Your task to perform on an android device: turn off notifications settings in the gmail app Image 0: 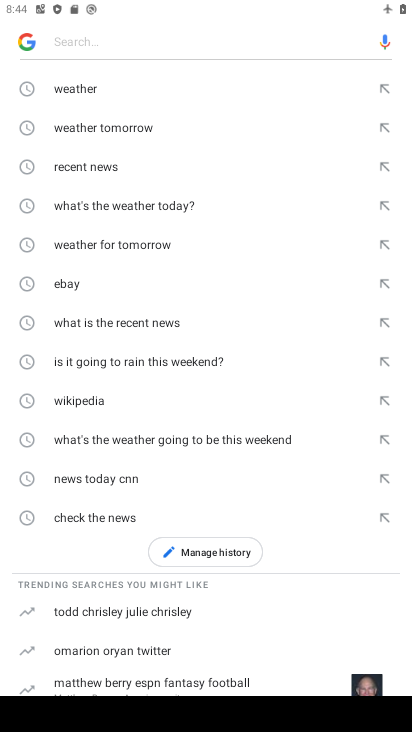
Step 0: press home button
Your task to perform on an android device: turn off notifications settings in the gmail app Image 1: 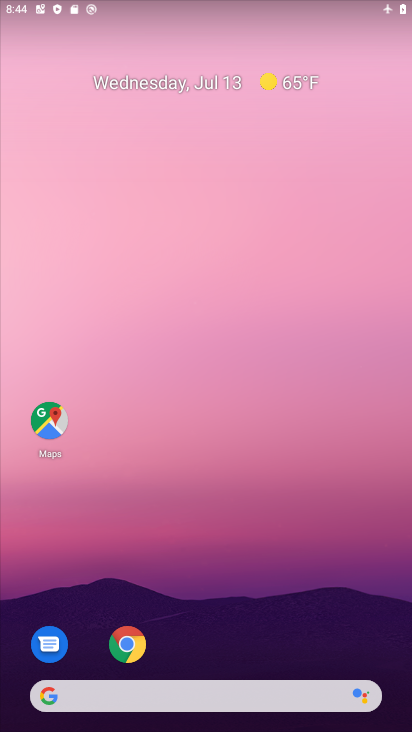
Step 1: drag from (292, 499) to (260, 28)
Your task to perform on an android device: turn off notifications settings in the gmail app Image 2: 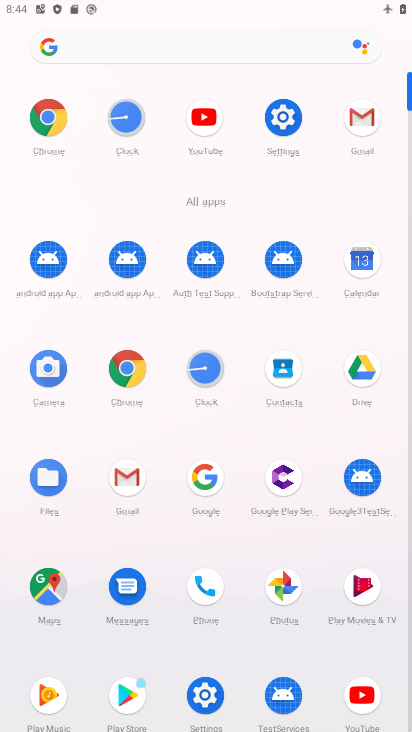
Step 2: click (365, 136)
Your task to perform on an android device: turn off notifications settings in the gmail app Image 3: 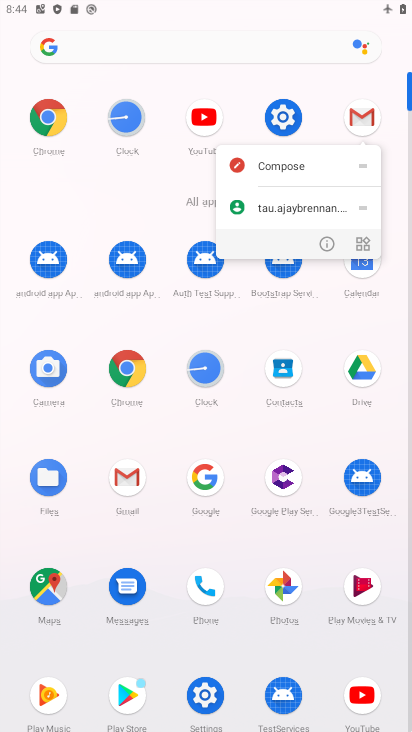
Step 3: click (358, 133)
Your task to perform on an android device: turn off notifications settings in the gmail app Image 4: 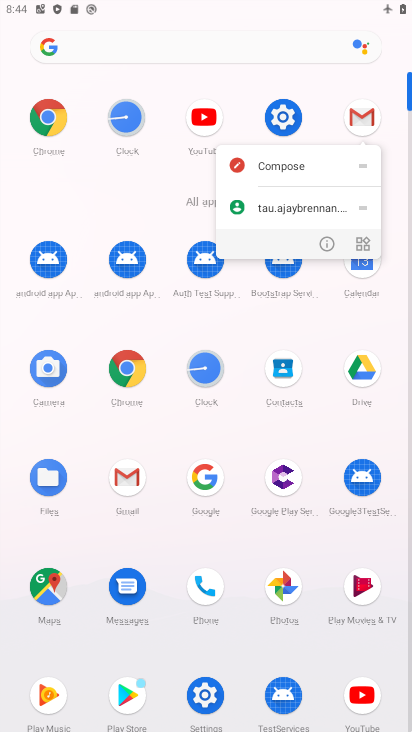
Step 4: click (354, 121)
Your task to perform on an android device: turn off notifications settings in the gmail app Image 5: 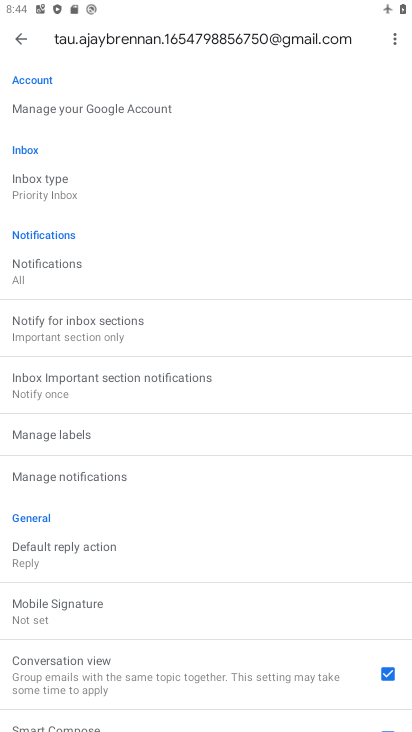
Step 5: click (38, 257)
Your task to perform on an android device: turn off notifications settings in the gmail app Image 6: 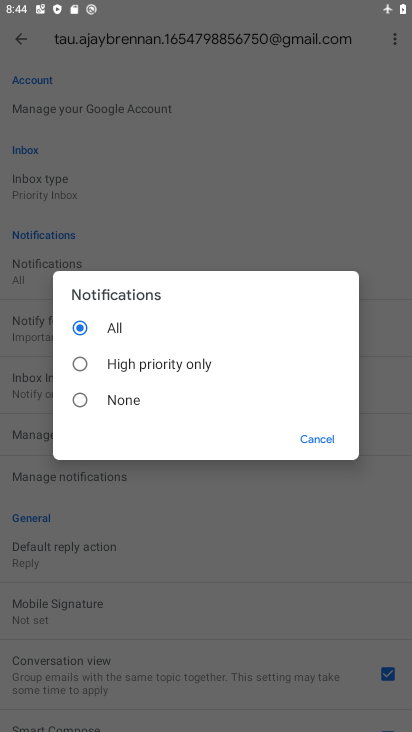
Step 6: click (102, 391)
Your task to perform on an android device: turn off notifications settings in the gmail app Image 7: 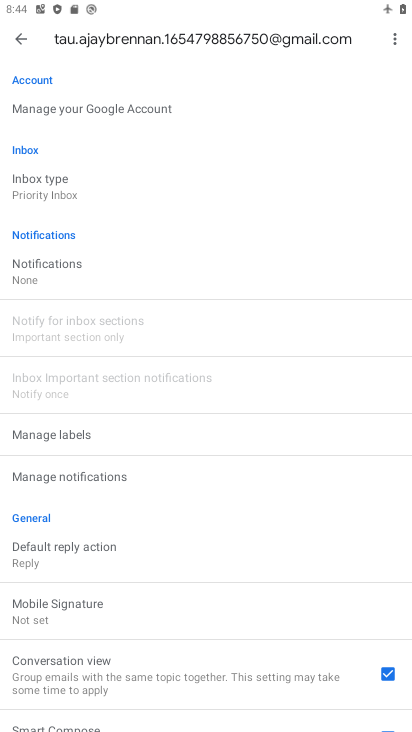
Step 7: task complete